Your task to perform on an android device: turn off notifications settings in the gmail app Image 0: 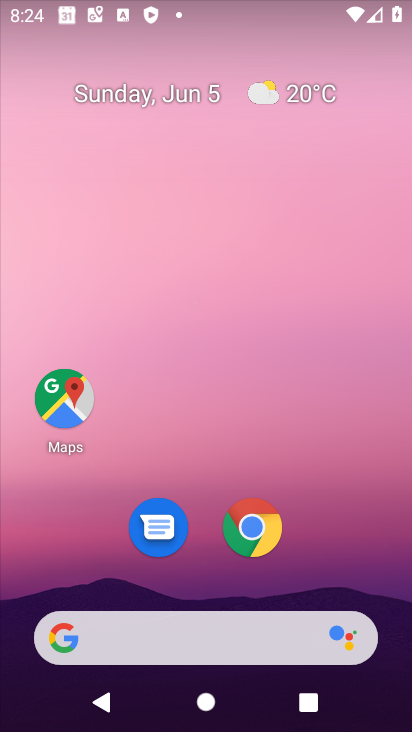
Step 0: drag from (212, 575) to (227, 122)
Your task to perform on an android device: turn off notifications settings in the gmail app Image 1: 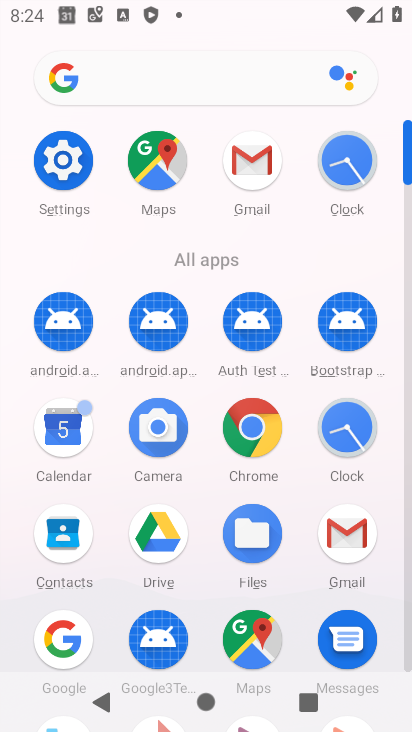
Step 1: click (74, 152)
Your task to perform on an android device: turn off notifications settings in the gmail app Image 2: 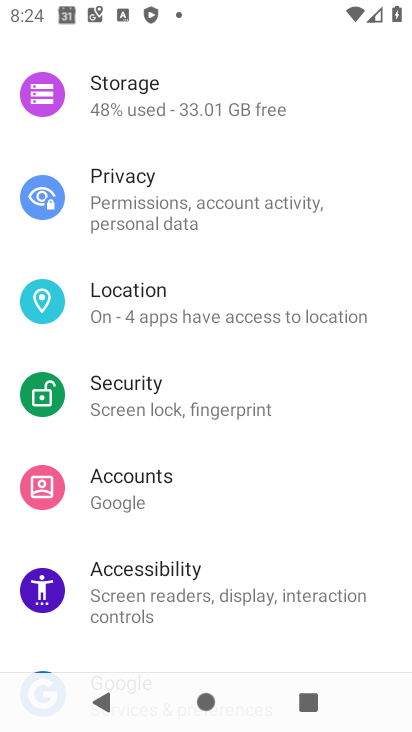
Step 2: drag from (74, 152) to (138, 490)
Your task to perform on an android device: turn off notifications settings in the gmail app Image 3: 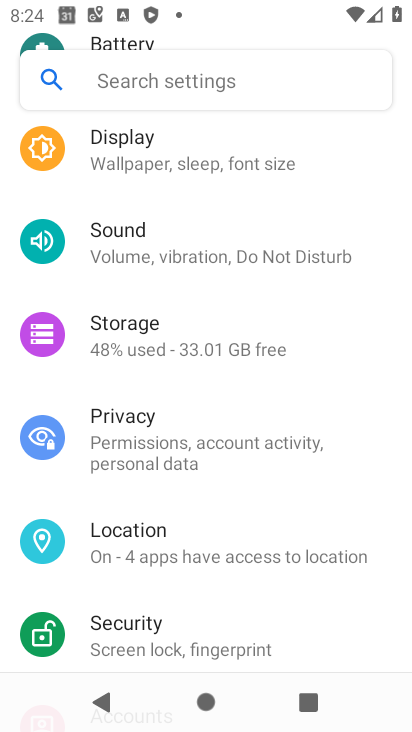
Step 3: drag from (171, 190) to (125, 689)
Your task to perform on an android device: turn off notifications settings in the gmail app Image 4: 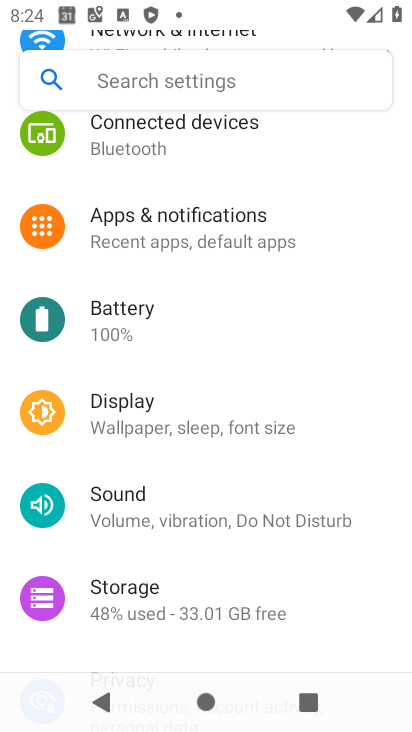
Step 4: drag from (130, 157) to (114, 532)
Your task to perform on an android device: turn off notifications settings in the gmail app Image 5: 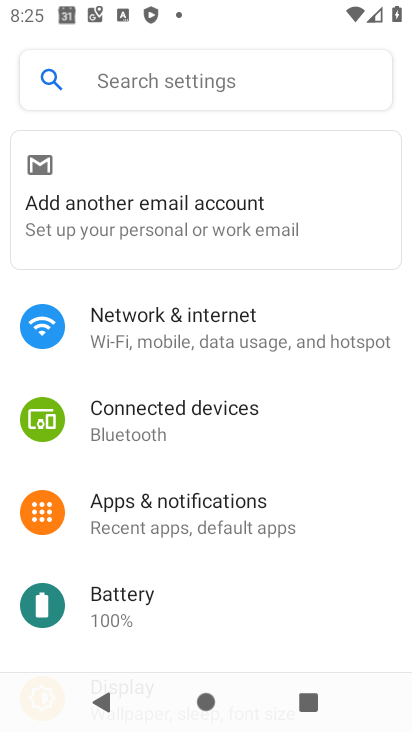
Step 5: click (151, 530)
Your task to perform on an android device: turn off notifications settings in the gmail app Image 6: 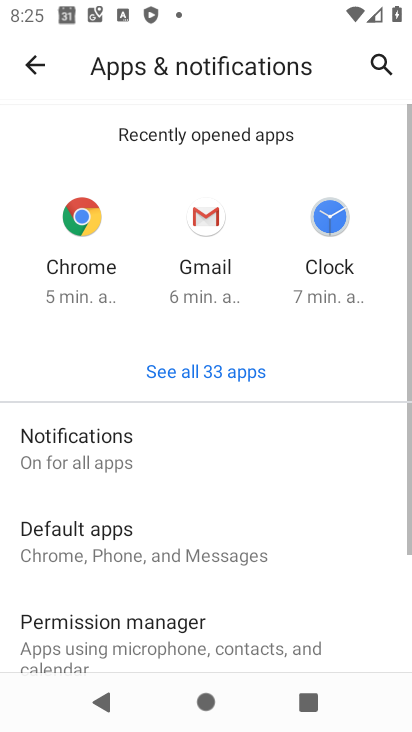
Step 6: click (203, 215)
Your task to perform on an android device: turn off notifications settings in the gmail app Image 7: 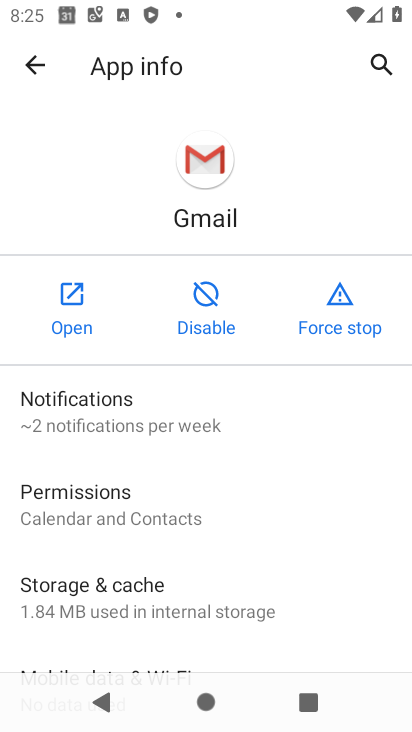
Step 7: click (120, 402)
Your task to perform on an android device: turn off notifications settings in the gmail app Image 8: 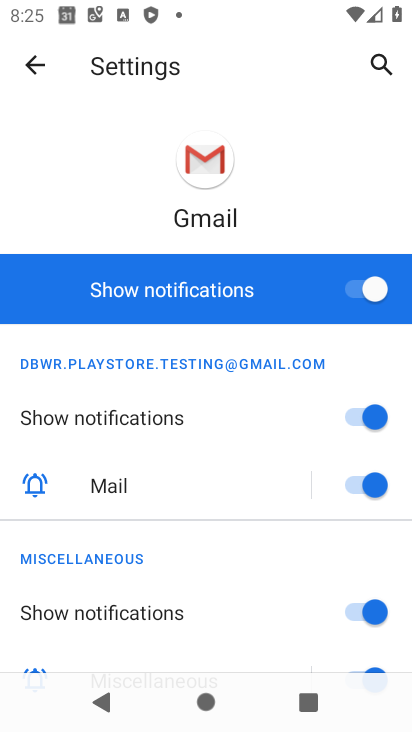
Step 8: task complete